Your task to perform on an android device: turn on priority inbox in the gmail app Image 0: 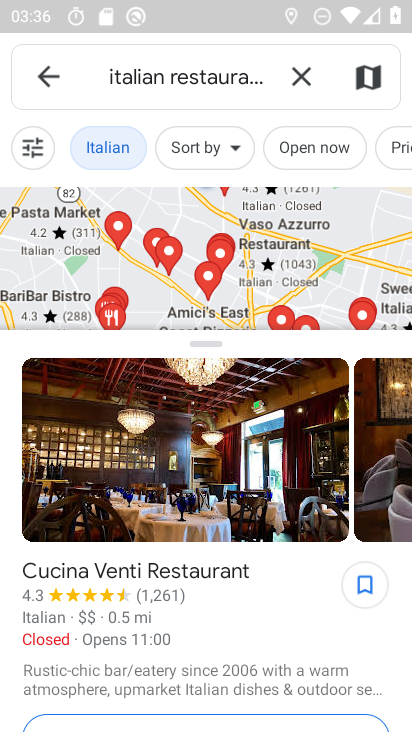
Step 0: press home button
Your task to perform on an android device: turn on priority inbox in the gmail app Image 1: 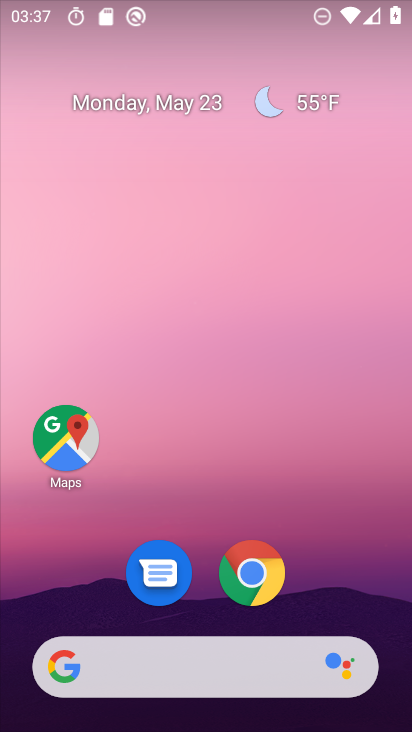
Step 1: drag from (322, 501) to (257, 79)
Your task to perform on an android device: turn on priority inbox in the gmail app Image 2: 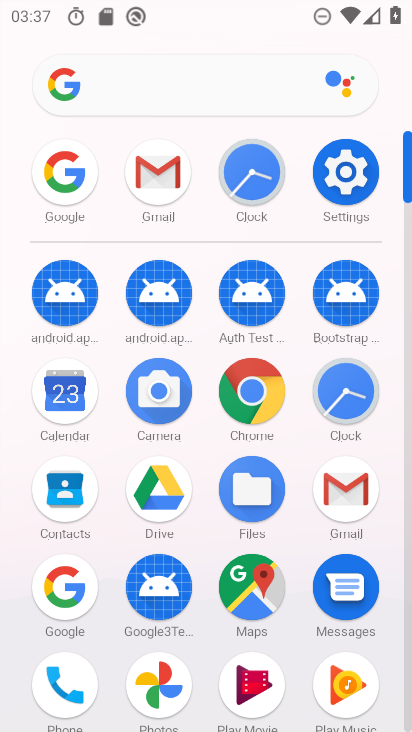
Step 2: click (342, 480)
Your task to perform on an android device: turn on priority inbox in the gmail app Image 3: 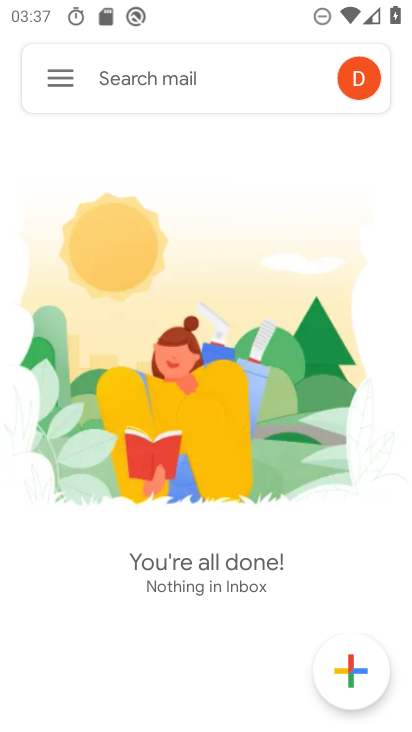
Step 3: click (63, 78)
Your task to perform on an android device: turn on priority inbox in the gmail app Image 4: 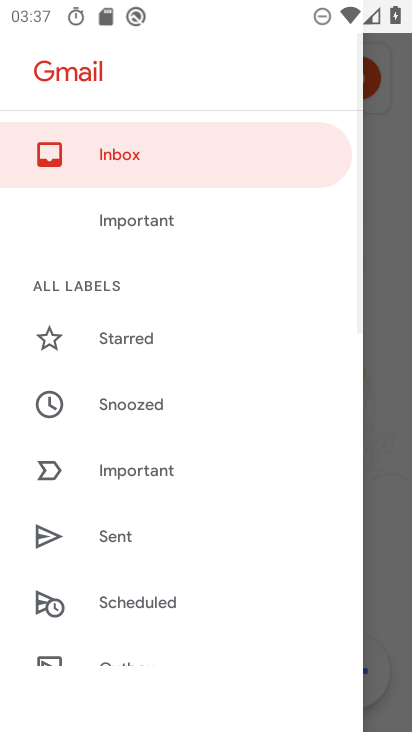
Step 4: drag from (247, 621) to (198, 215)
Your task to perform on an android device: turn on priority inbox in the gmail app Image 5: 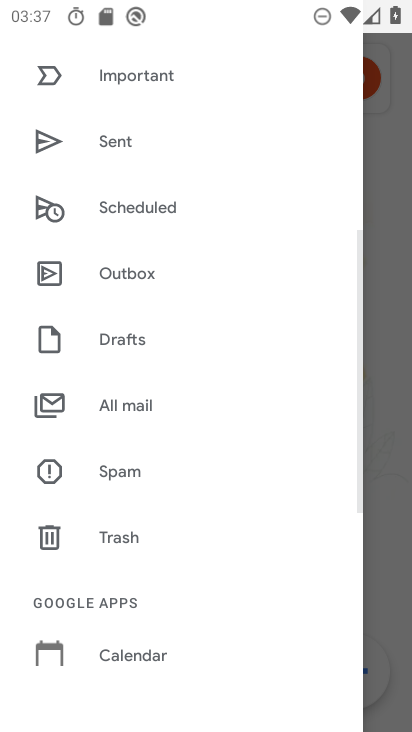
Step 5: drag from (201, 567) to (156, 56)
Your task to perform on an android device: turn on priority inbox in the gmail app Image 6: 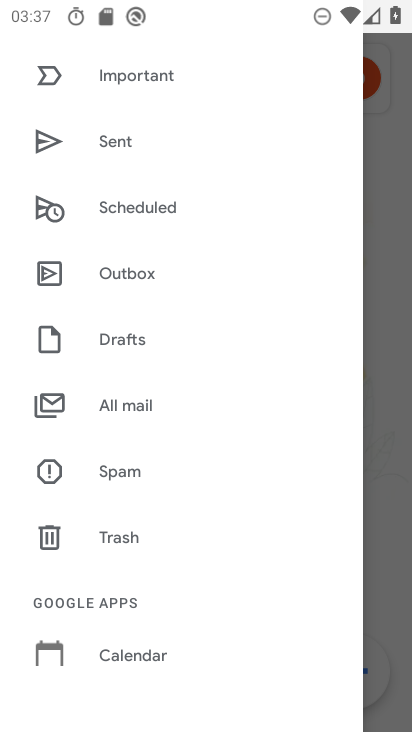
Step 6: drag from (191, 603) to (192, 174)
Your task to perform on an android device: turn on priority inbox in the gmail app Image 7: 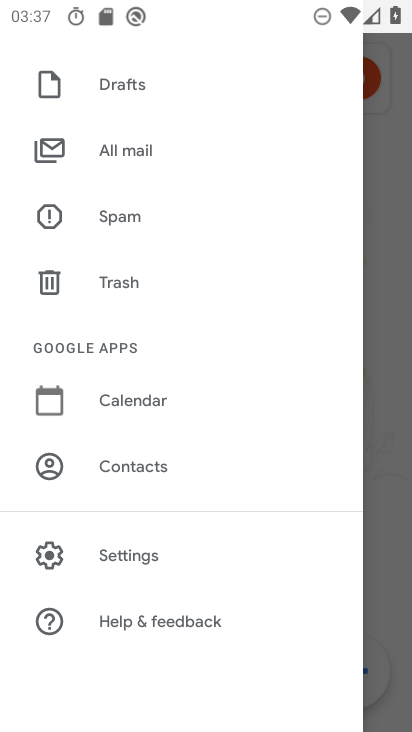
Step 7: click (148, 554)
Your task to perform on an android device: turn on priority inbox in the gmail app Image 8: 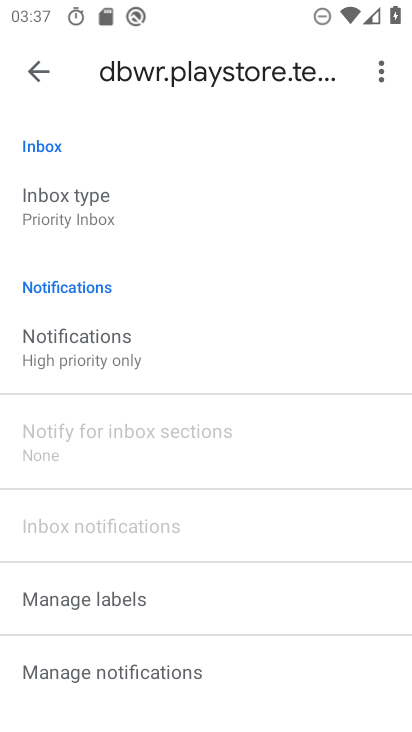
Step 8: task complete